Your task to perform on an android device: What's the weather today? Image 0: 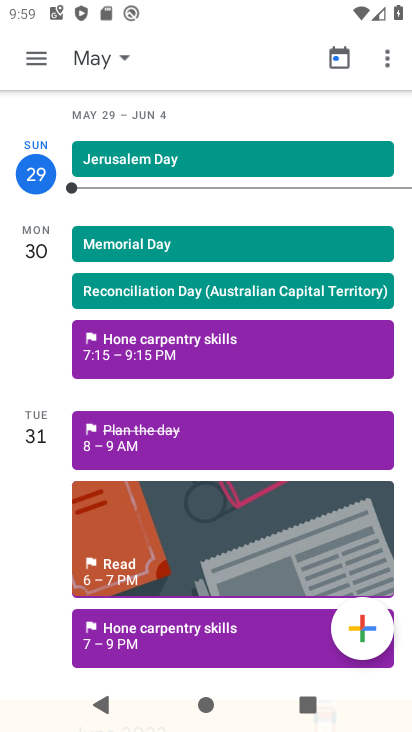
Step 0: press home button
Your task to perform on an android device: What's the weather today? Image 1: 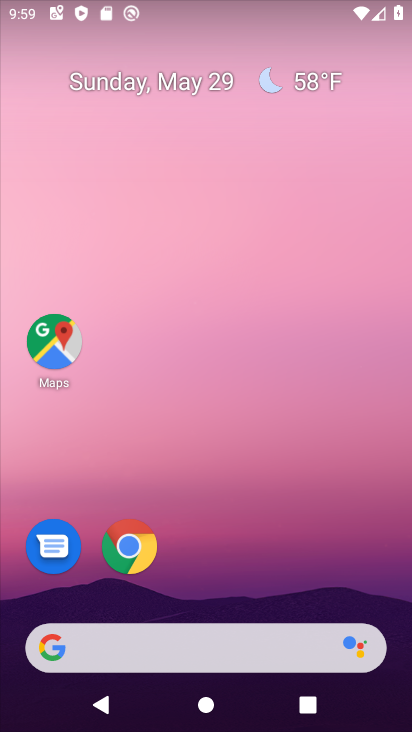
Step 1: click (306, 83)
Your task to perform on an android device: What's the weather today? Image 2: 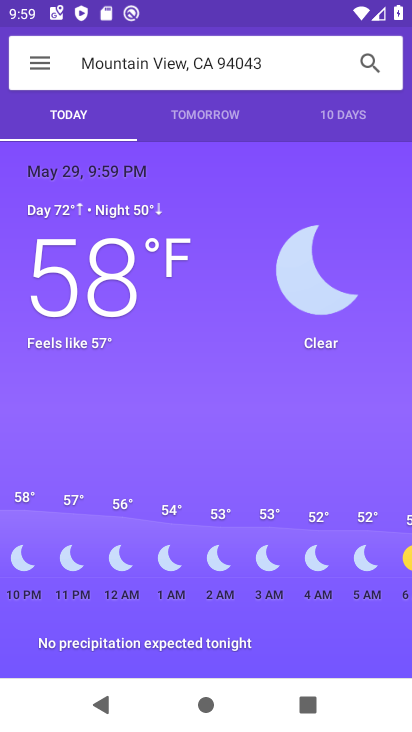
Step 2: task complete